Your task to perform on an android device: What is the speed of a bicycle? Image 0: 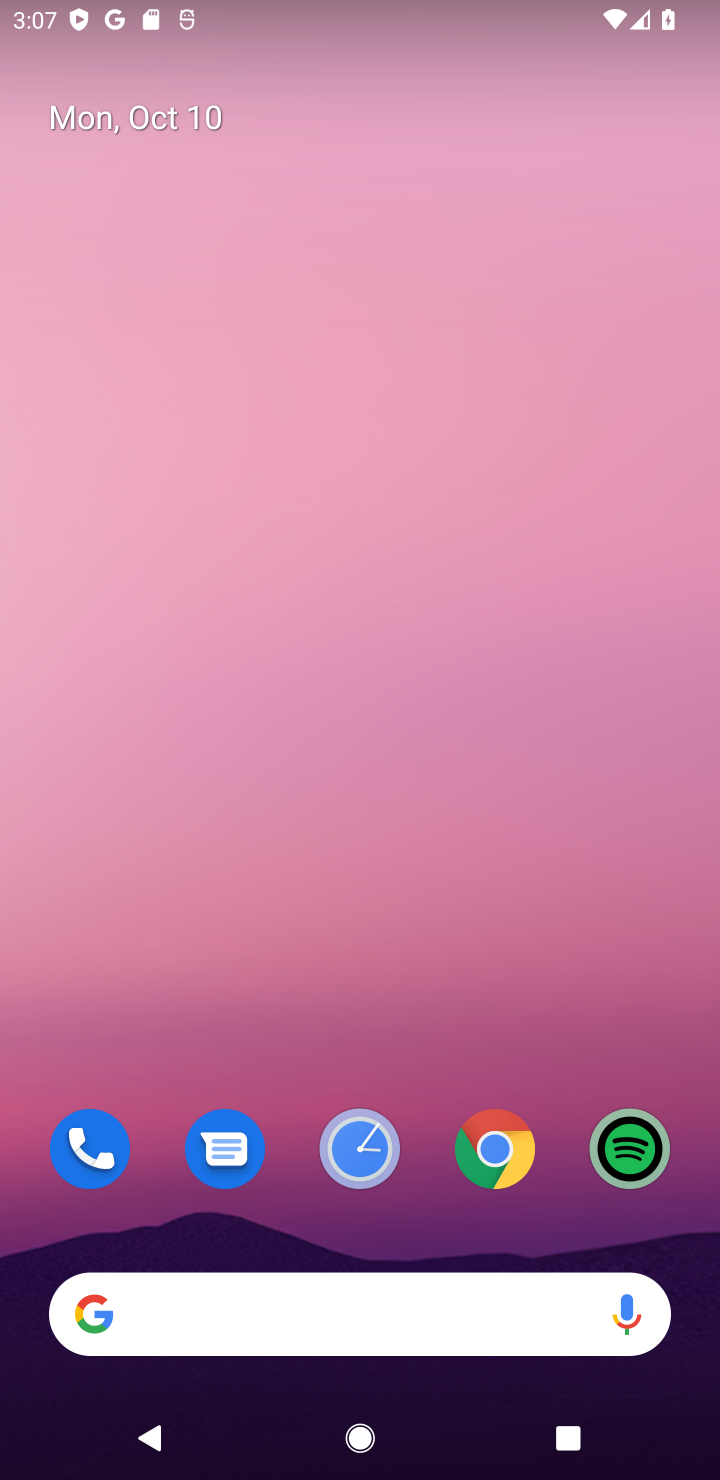
Step 0: click (375, 1278)
Your task to perform on an android device: What is the speed of a bicycle? Image 1: 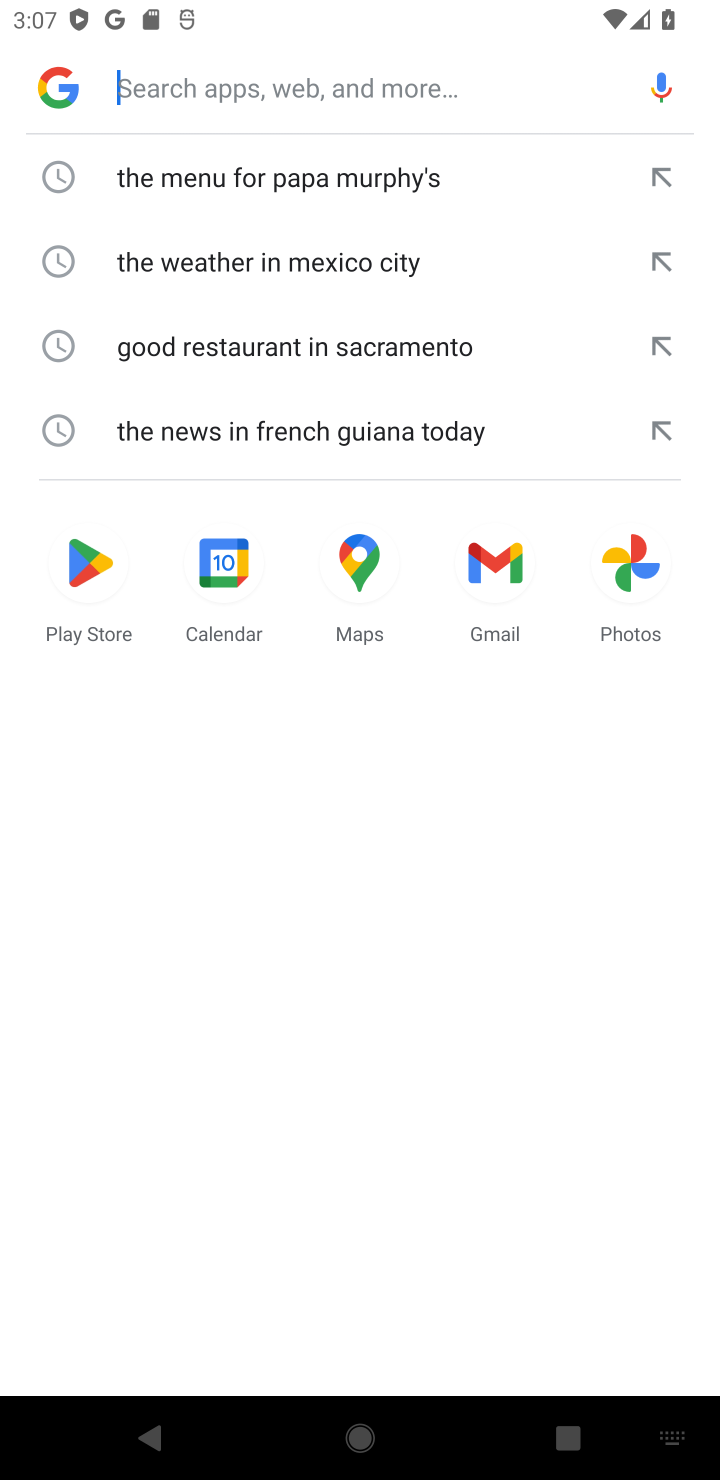
Step 1: type "speed of a bicycle?"
Your task to perform on an android device: What is the speed of a bicycle? Image 2: 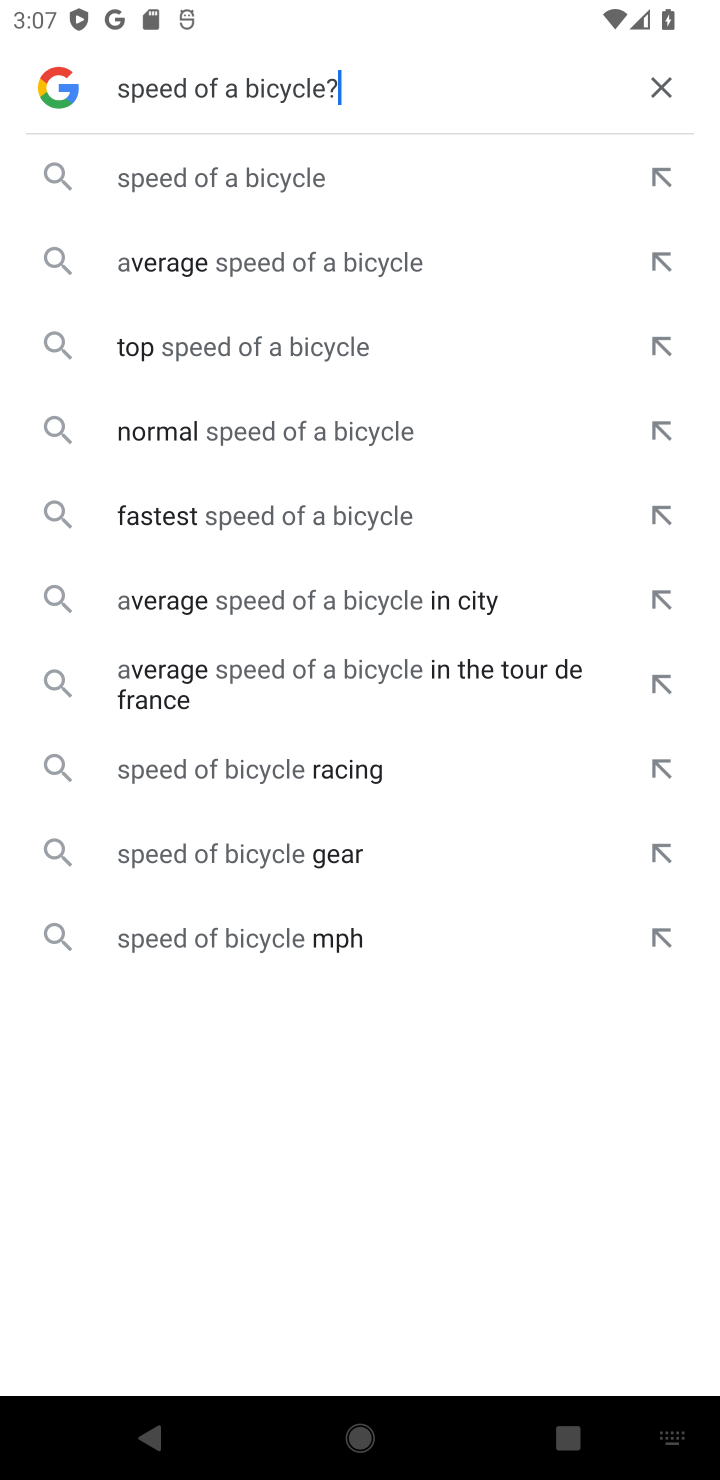
Step 2: click (366, 190)
Your task to perform on an android device: What is the speed of a bicycle? Image 3: 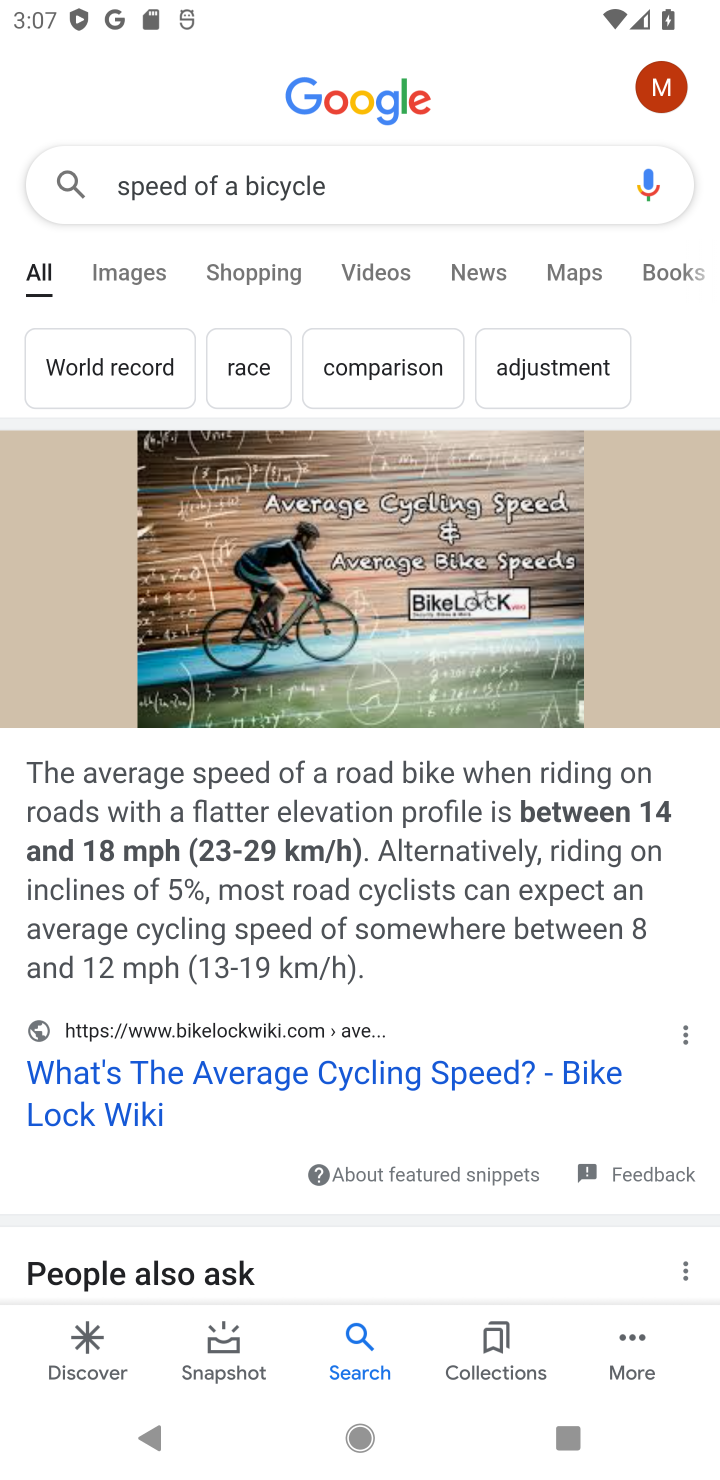
Step 3: task complete